Your task to perform on an android device: toggle notifications settings in the gmail app Image 0: 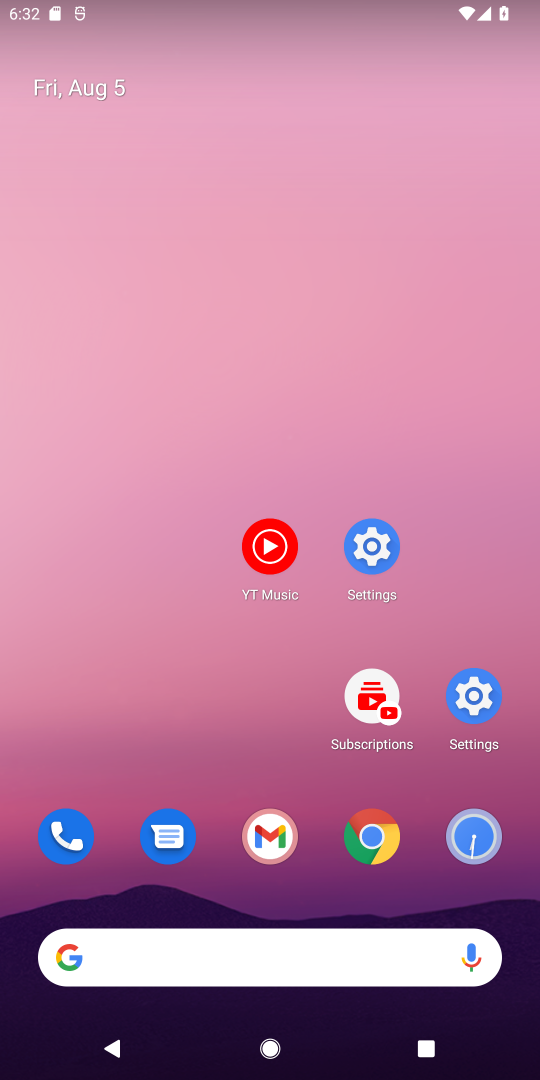
Step 0: drag from (366, 768) to (310, 359)
Your task to perform on an android device: toggle notifications settings in the gmail app Image 1: 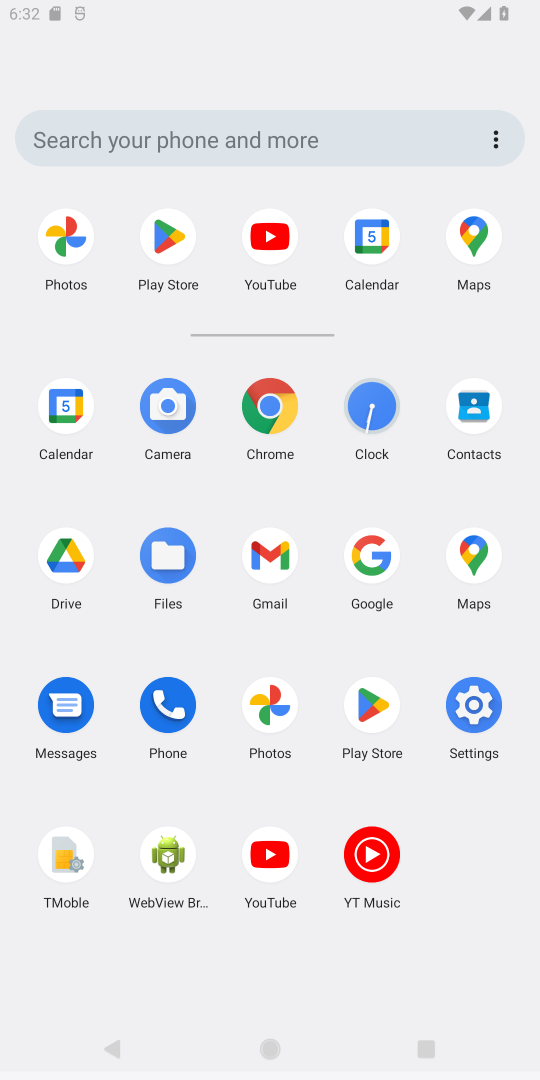
Step 1: drag from (357, 690) to (326, 263)
Your task to perform on an android device: toggle notifications settings in the gmail app Image 2: 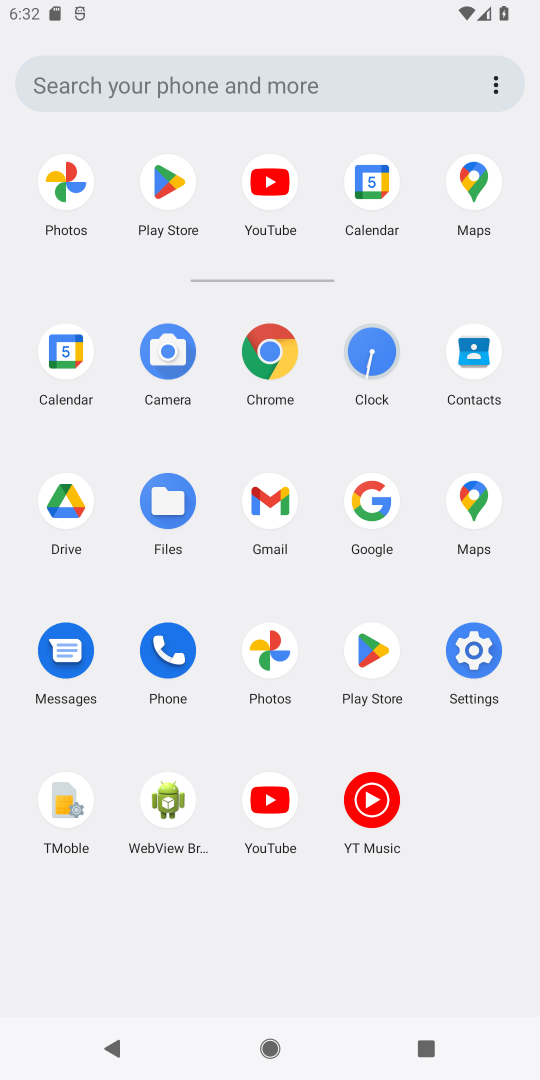
Step 2: click (286, 495)
Your task to perform on an android device: toggle notifications settings in the gmail app Image 3: 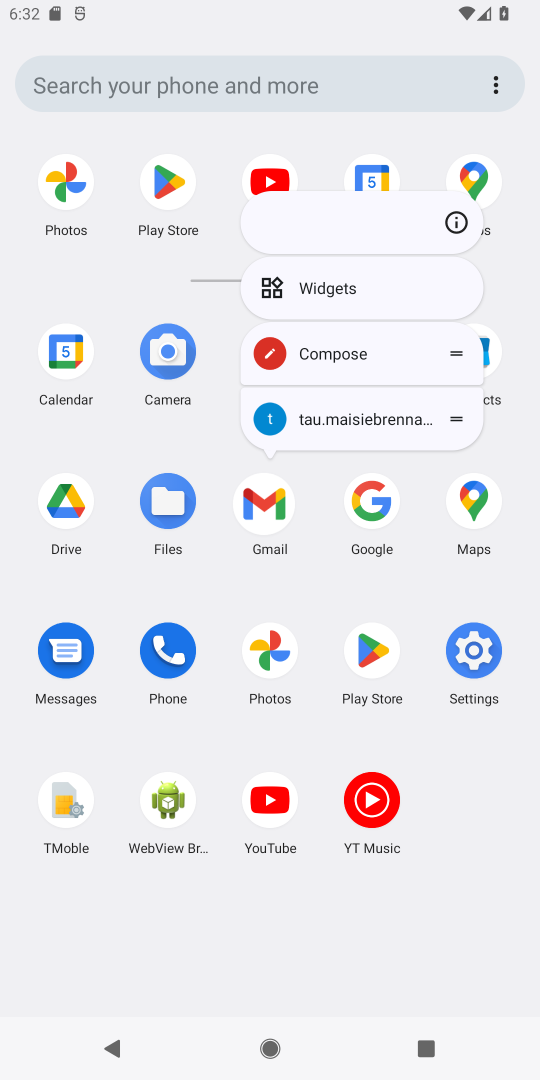
Step 3: click (278, 500)
Your task to perform on an android device: toggle notifications settings in the gmail app Image 4: 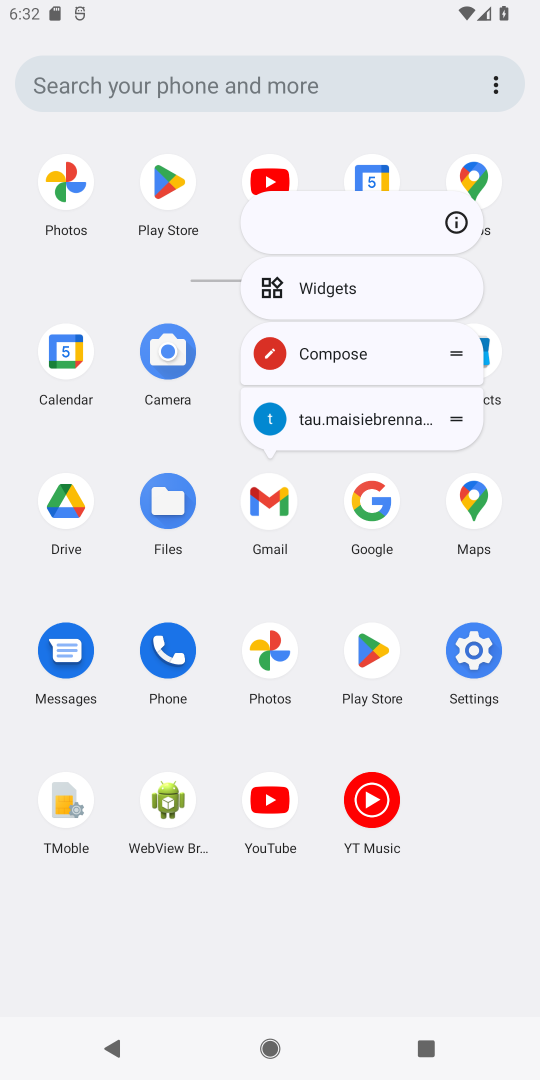
Step 4: click (278, 500)
Your task to perform on an android device: toggle notifications settings in the gmail app Image 5: 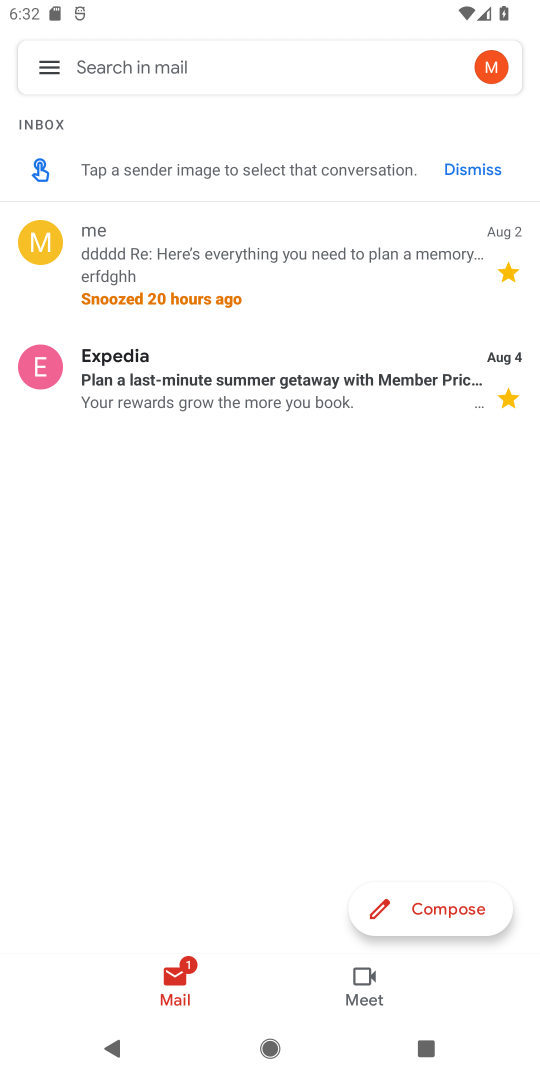
Step 5: click (91, 71)
Your task to perform on an android device: toggle notifications settings in the gmail app Image 6: 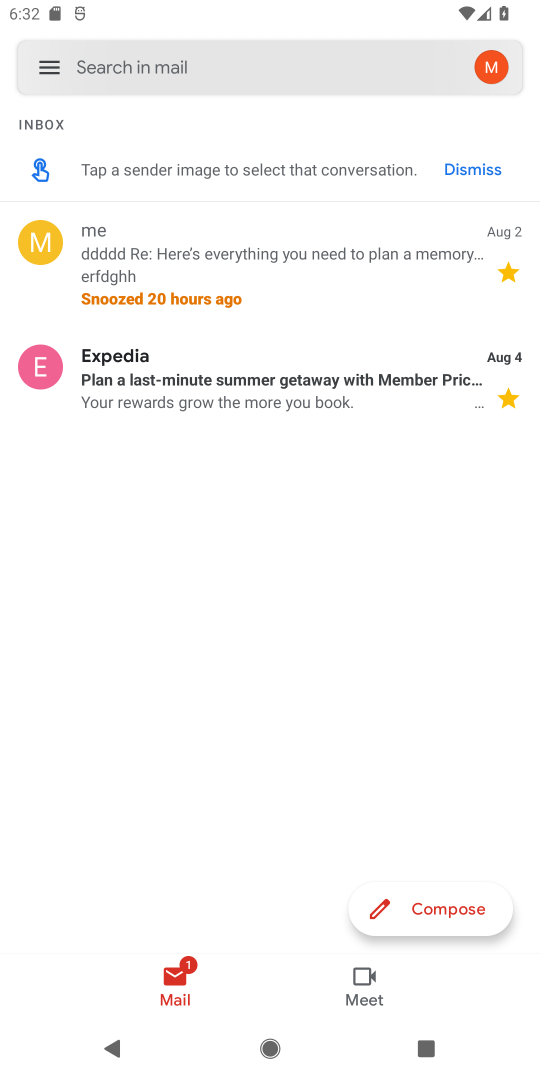
Step 6: click (94, 72)
Your task to perform on an android device: toggle notifications settings in the gmail app Image 7: 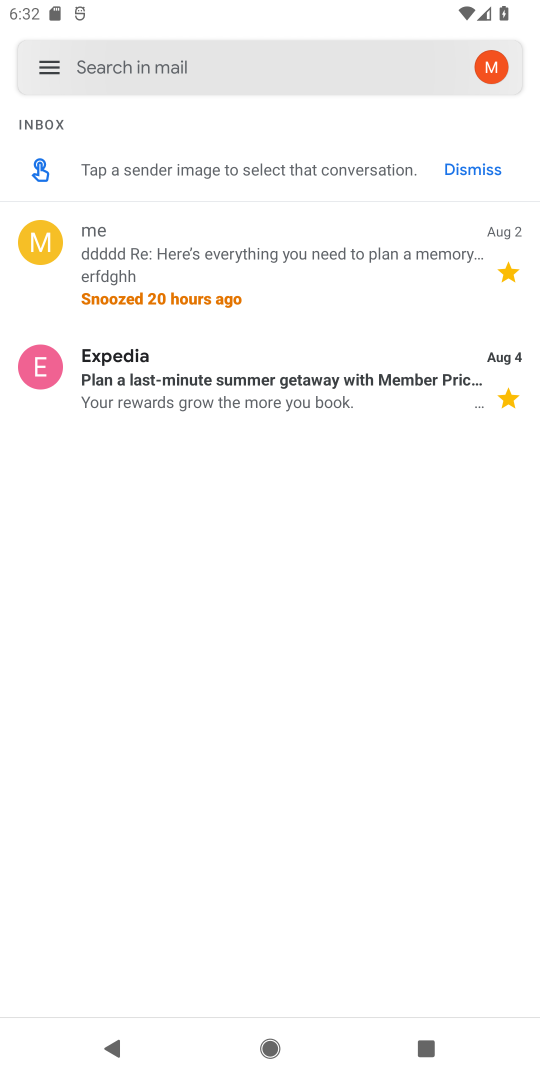
Step 7: click (94, 72)
Your task to perform on an android device: toggle notifications settings in the gmail app Image 8: 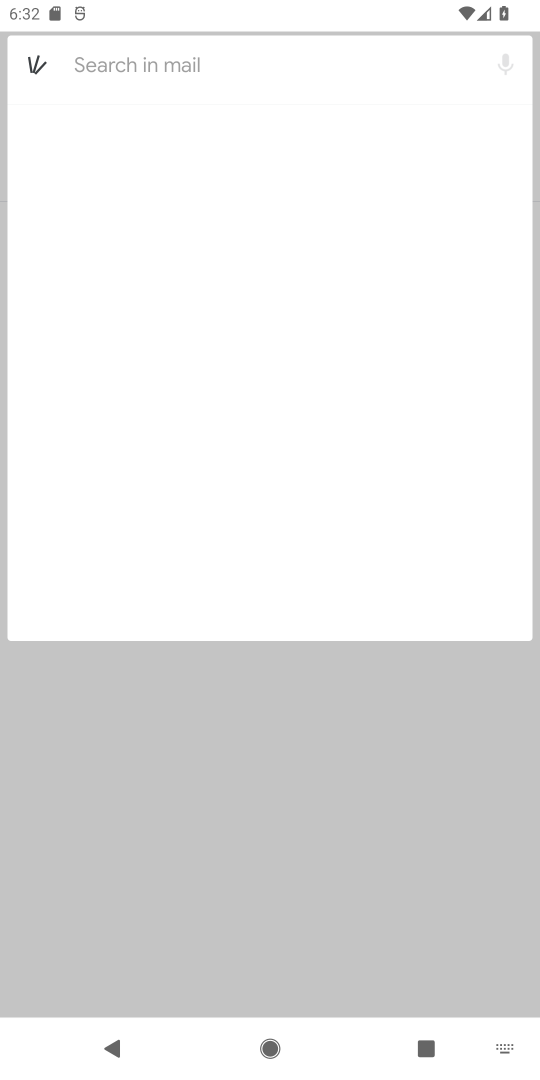
Step 8: click (94, 72)
Your task to perform on an android device: toggle notifications settings in the gmail app Image 9: 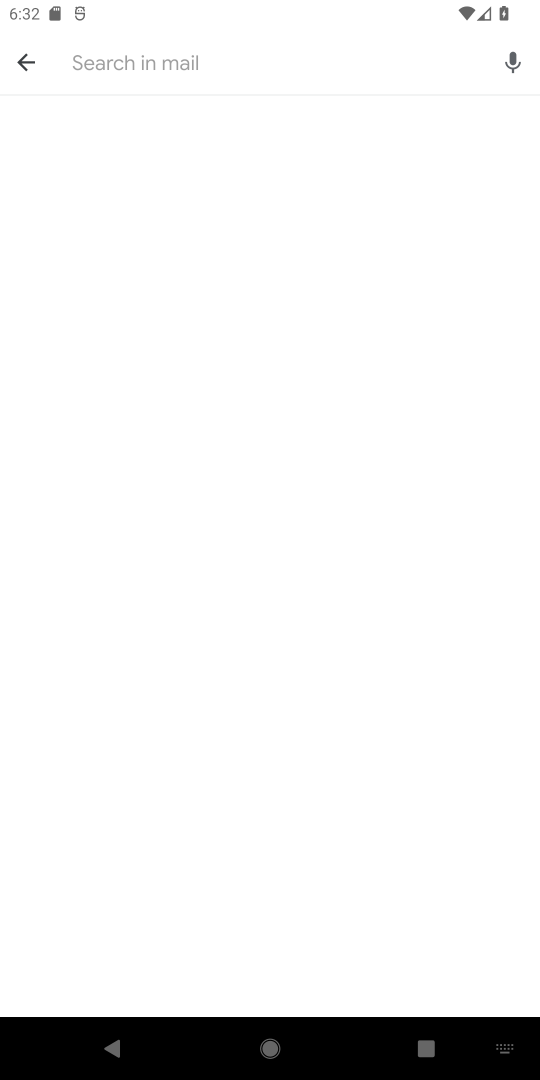
Step 9: click (23, 69)
Your task to perform on an android device: toggle notifications settings in the gmail app Image 10: 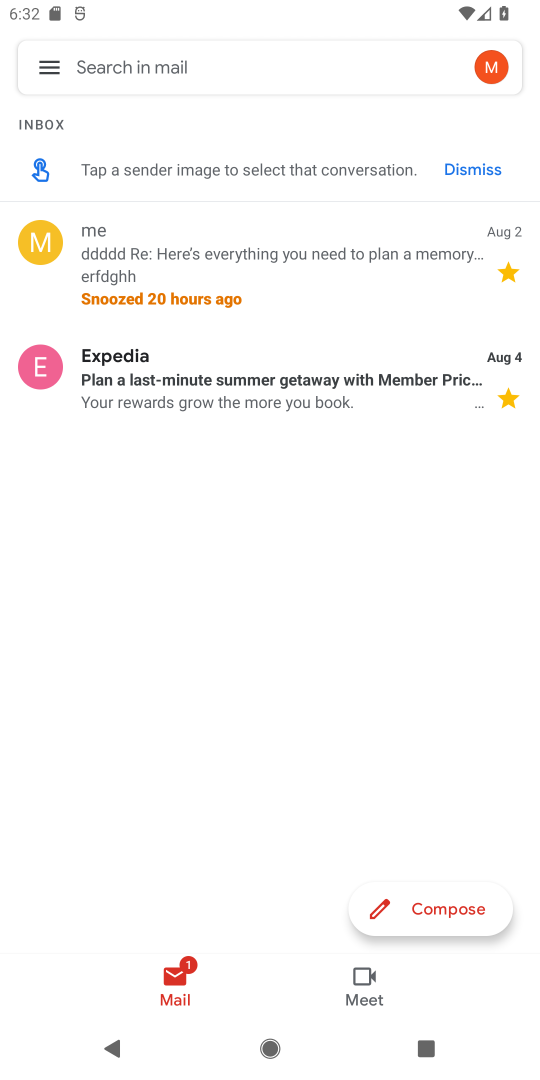
Step 10: click (53, 65)
Your task to perform on an android device: toggle notifications settings in the gmail app Image 11: 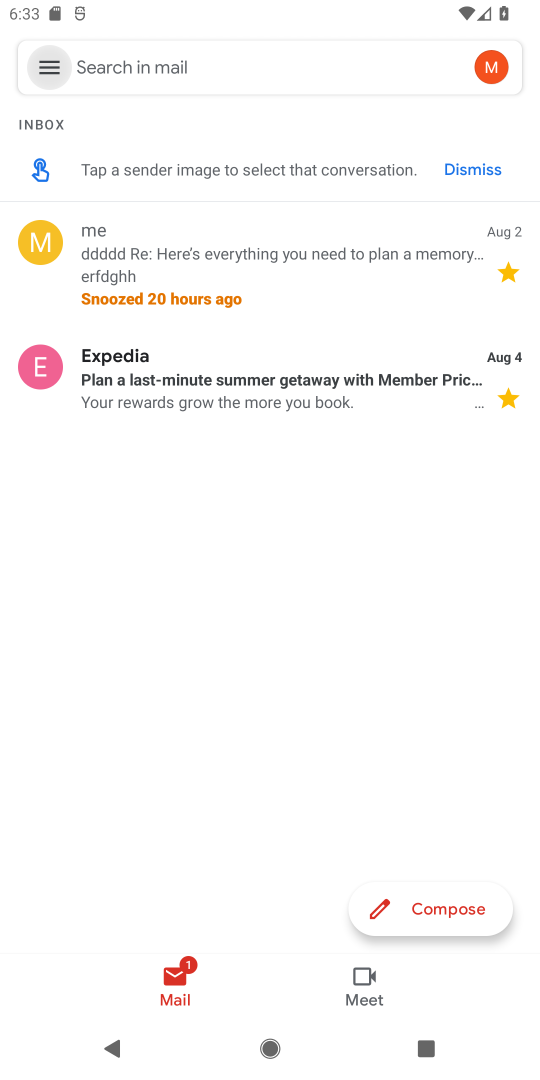
Step 11: click (54, 64)
Your task to perform on an android device: toggle notifications settings in the gmail app Image 12: 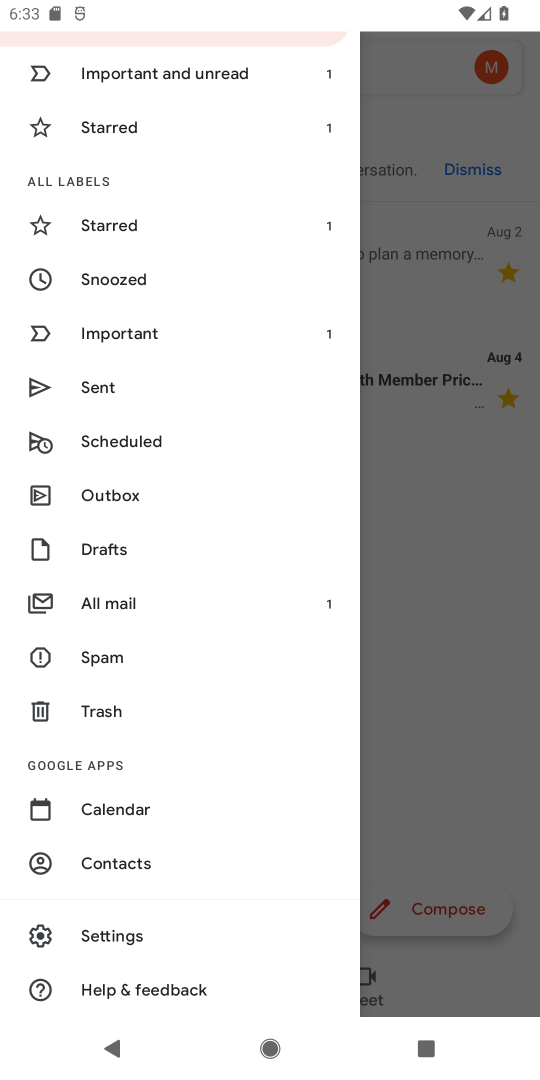
Step 12: drag from (54, 64) to (86, 538)
Your task to perform on an android device: toggle notifications settings in the gmail app Image 13: 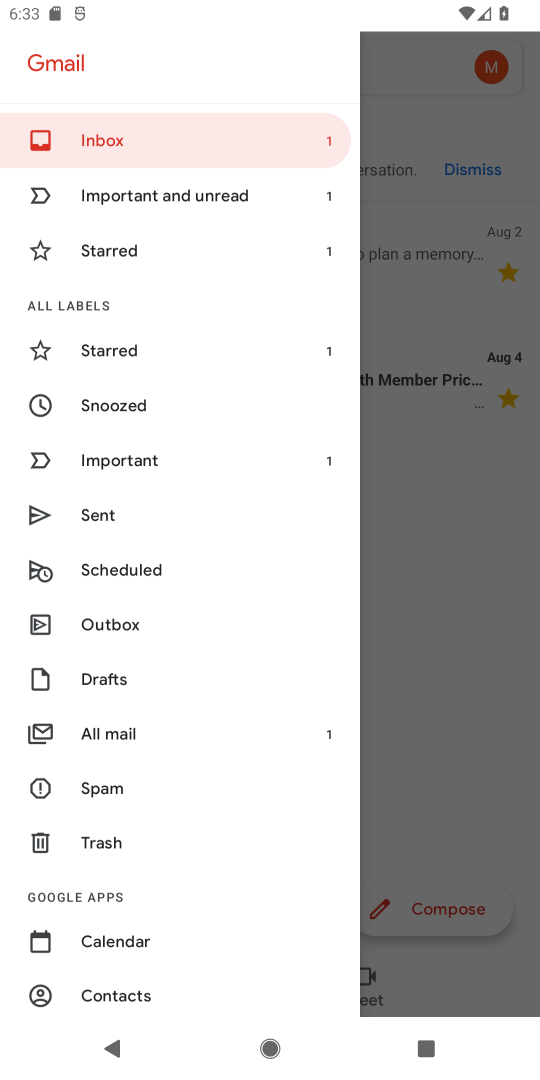
Step 13: drag from (148, 493) to (144, 411)
Your task to perform on an android device: toggle notifications settings in the gmail app Image 14: 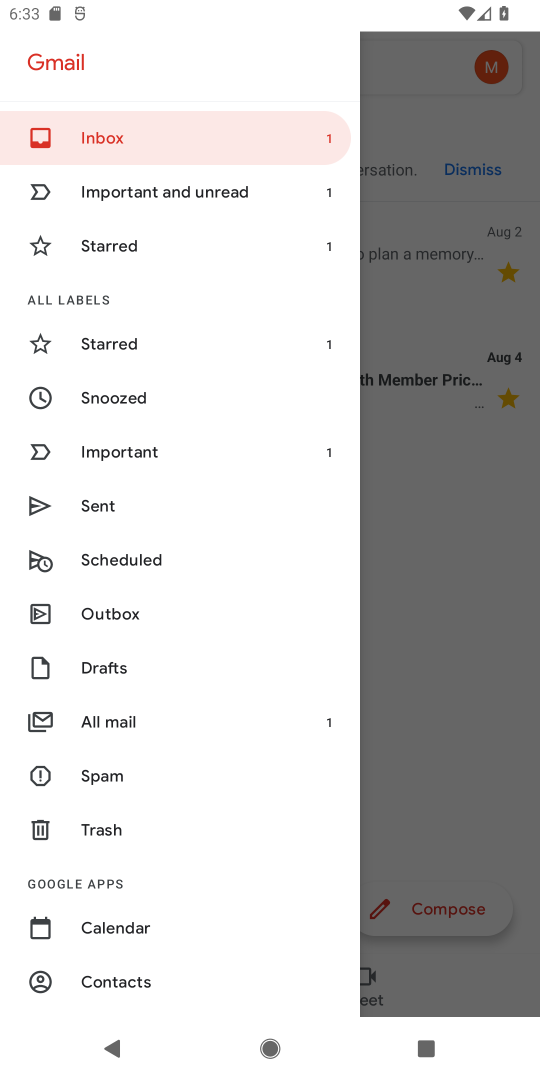
Step 14: drag from (150, 538) to (150, 326)
Your task to perform on an android device: toggle notifications settings in the gmail app Image 15: 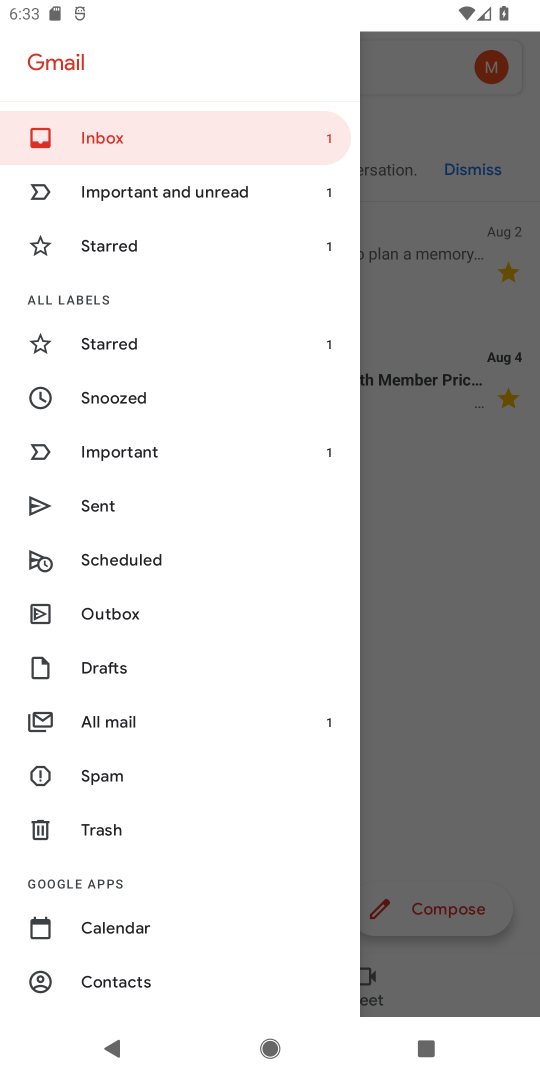
Step 15: click (188, 481)
Your task to perform on an android device: toggle notifications settings in the gmail app Image 16: 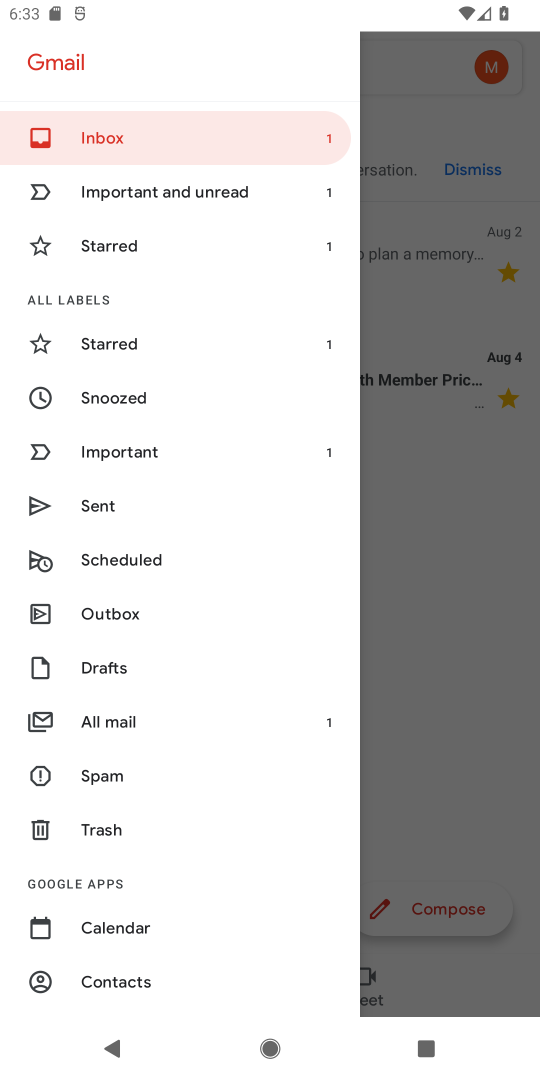
Step 16: click (173, 469)
Your task to perform on an android device: toggle notifications settings in the gmail app Image 17: 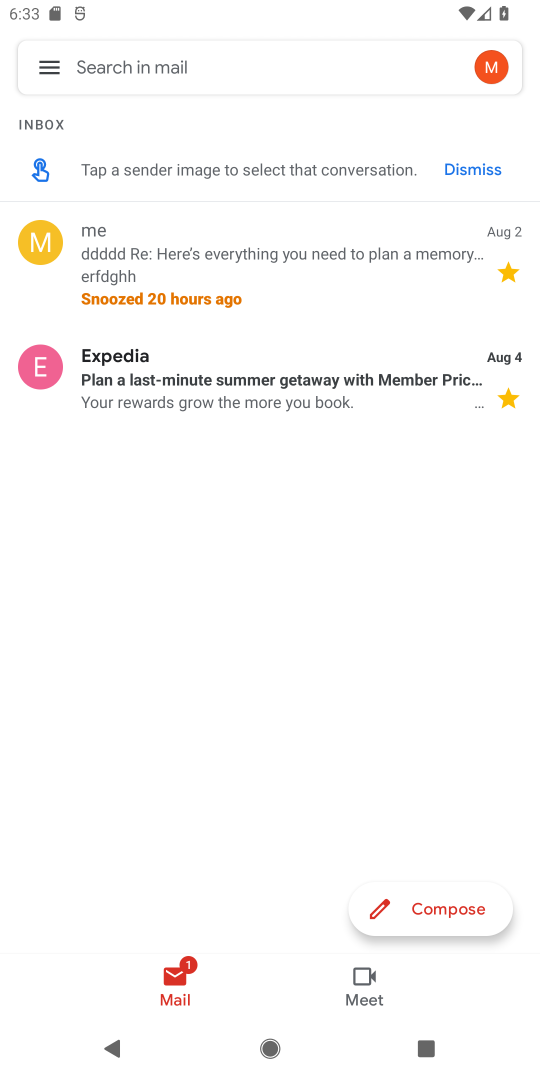
Step 17: drag from (184, 703) to (201, 491)
Your task to perform on an android device: toggle notifications settings in the gmail app Image 18: 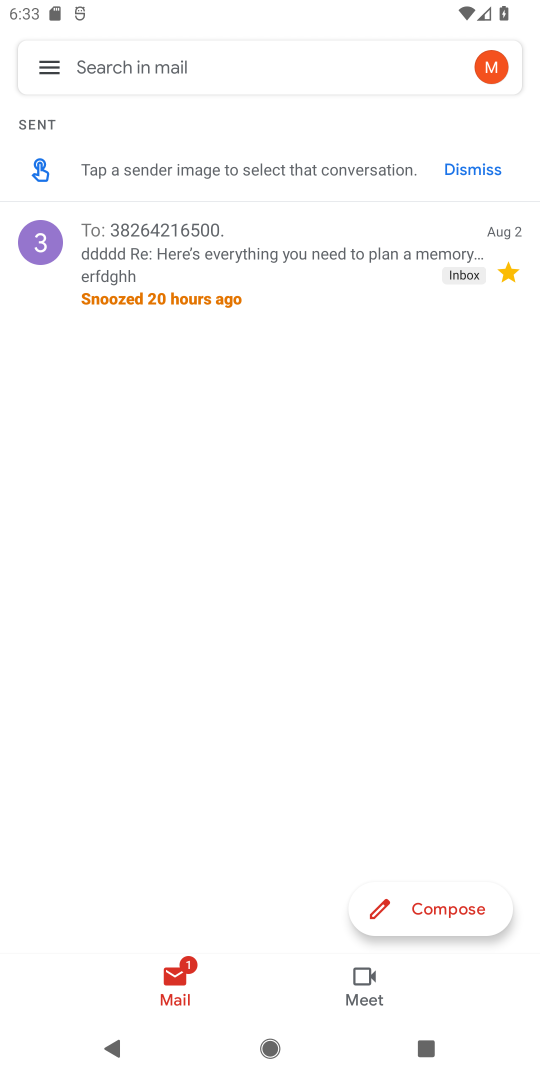
Step 18: click (54, 63)
Your task to perform on an android device: toggle notifications settings in the gmail app Image 19: 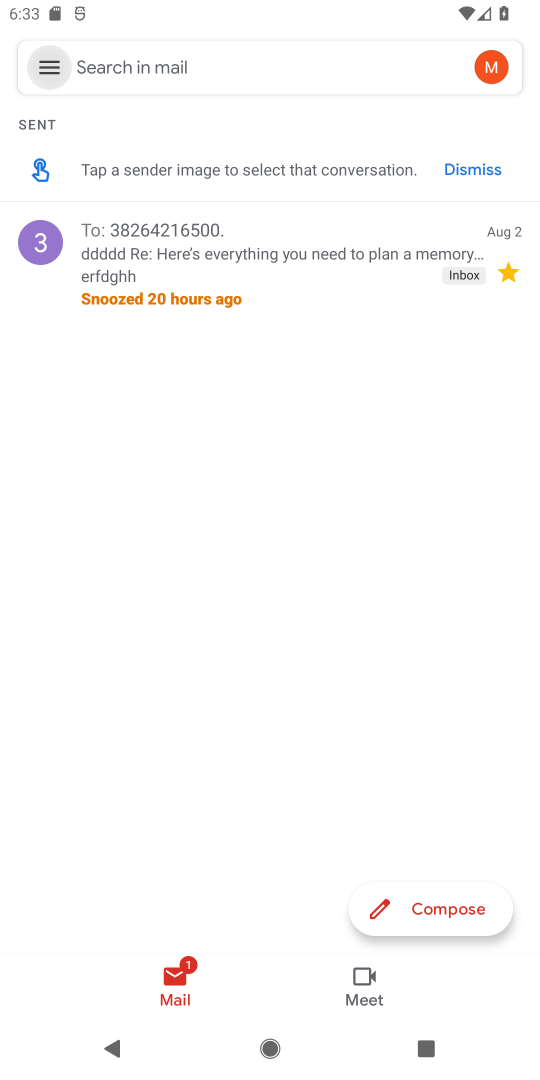
Step 19: click (54, 63)
Your task to perform on an android device: toggle notifications settings in the gmail app Image 20: 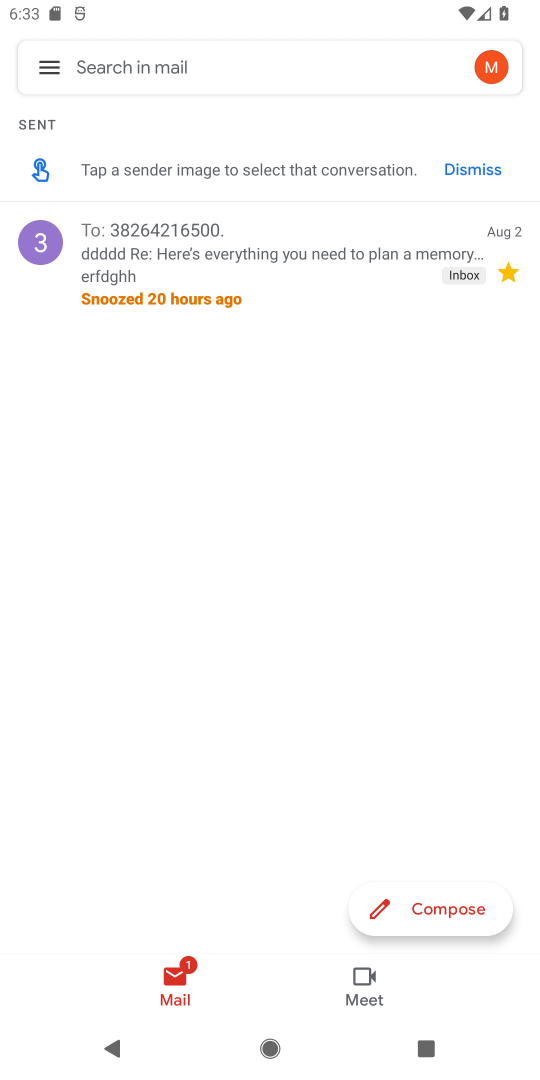
Step 20: click (52, 61)
Your task to perform on an android device: toggle notifications settings in the gmail app Image 21: 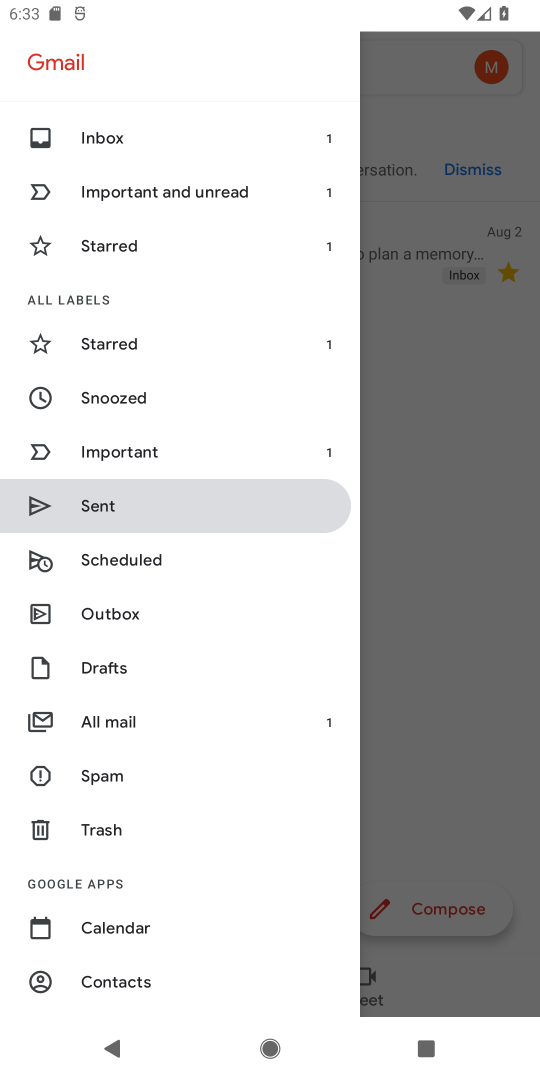
Step 21: drag from (155, 538) to (209, 464)
Your task to perform on an android device: toggle notifications settings in the gmail app Image 22: 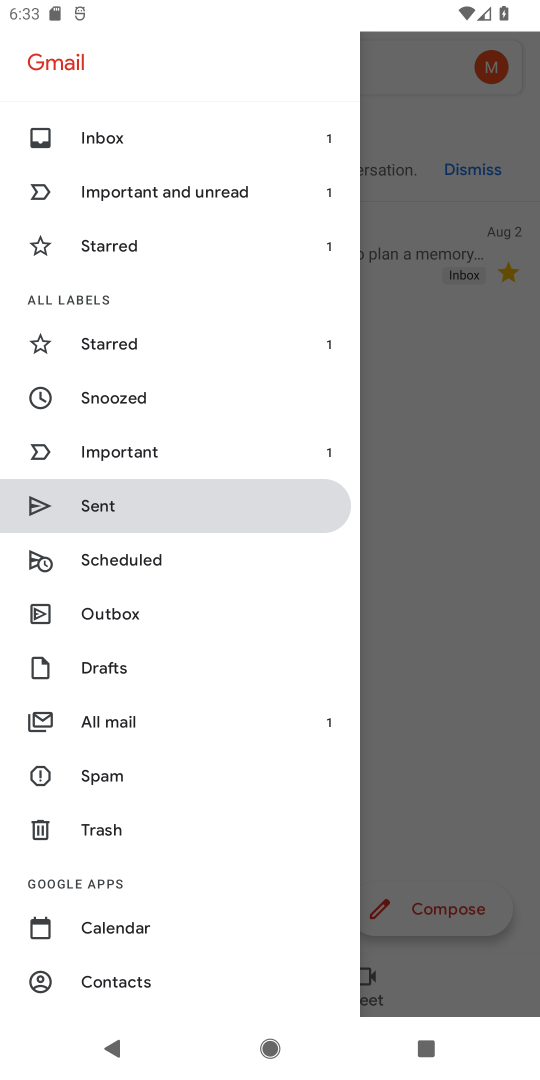
Step 22: drag from (130, 968) to (161, 229)
Your task to perform on an android device: toggle notifications settings in the gmail app Image 23: 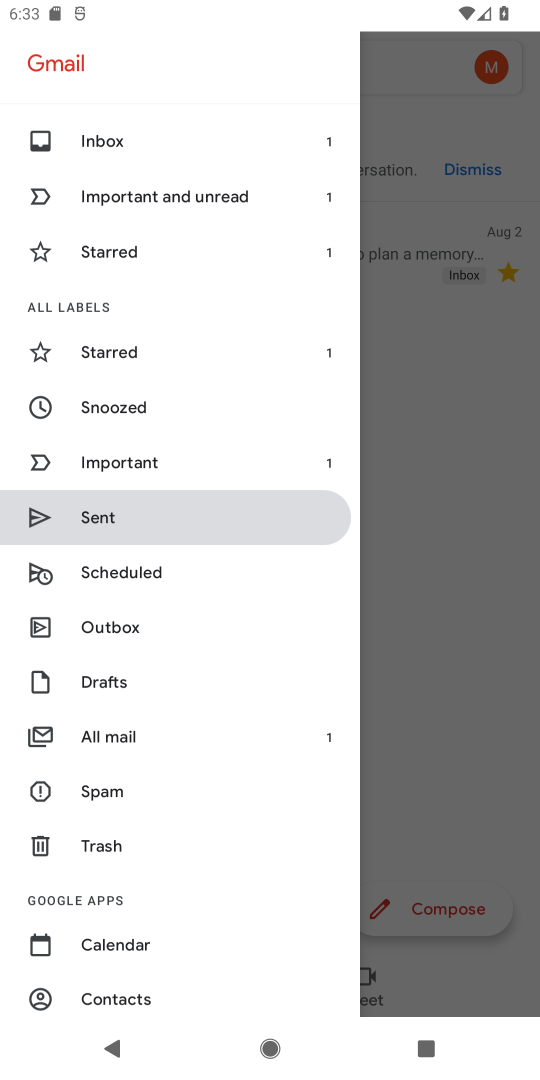
Step 23: drag from (186, 615) to (213, 262)
Your task to perform on an android device: toggle notifications settings in the gmail app Image 24: 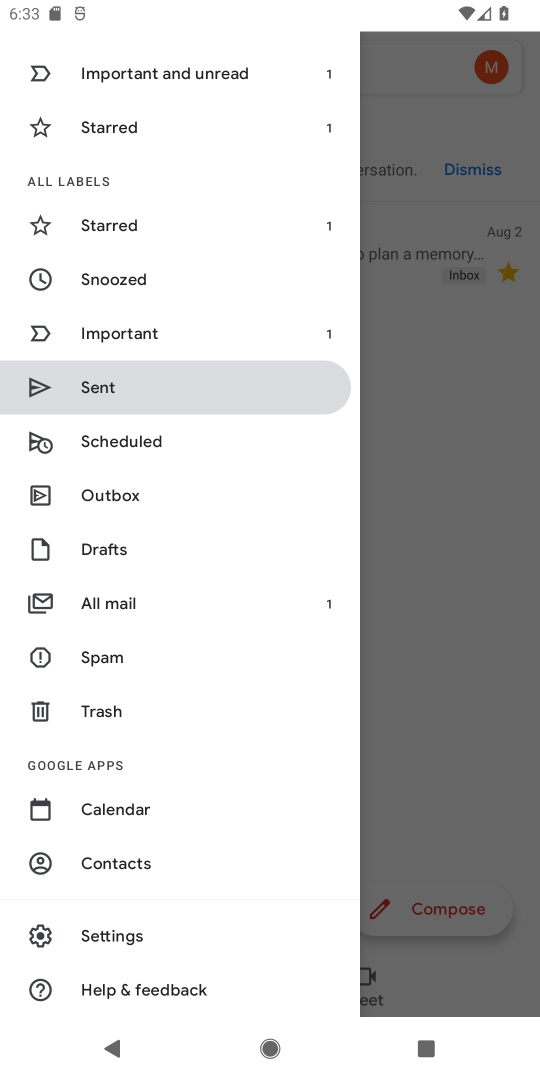
Step 24: click (105, 931)
Your task to perform on an android device: toggle notifications settings in the gmail app Image 25: 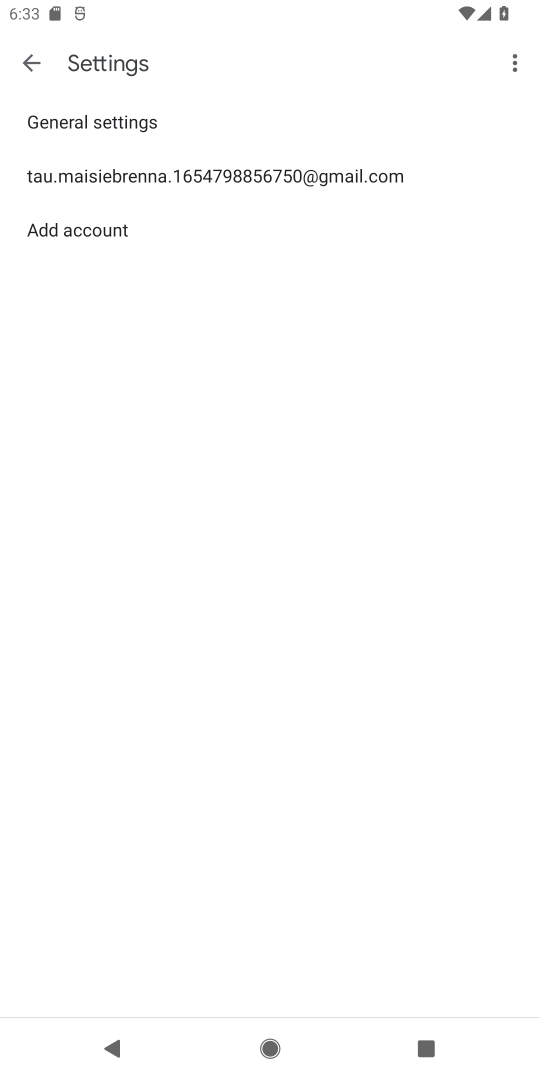
Step 25: click (137, 188)
Your task to perform on an android device: toggle notifications settings in the gmail app Image 26: 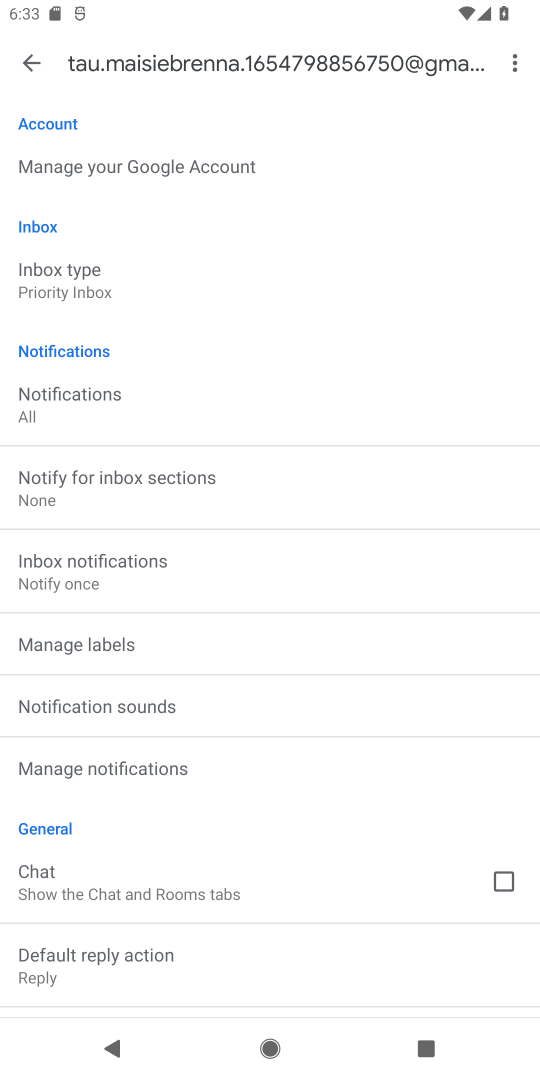
Step 26: click (64, 390)
Your task to perform on an android device: toggle notifications settings in the gmail app Image 27: 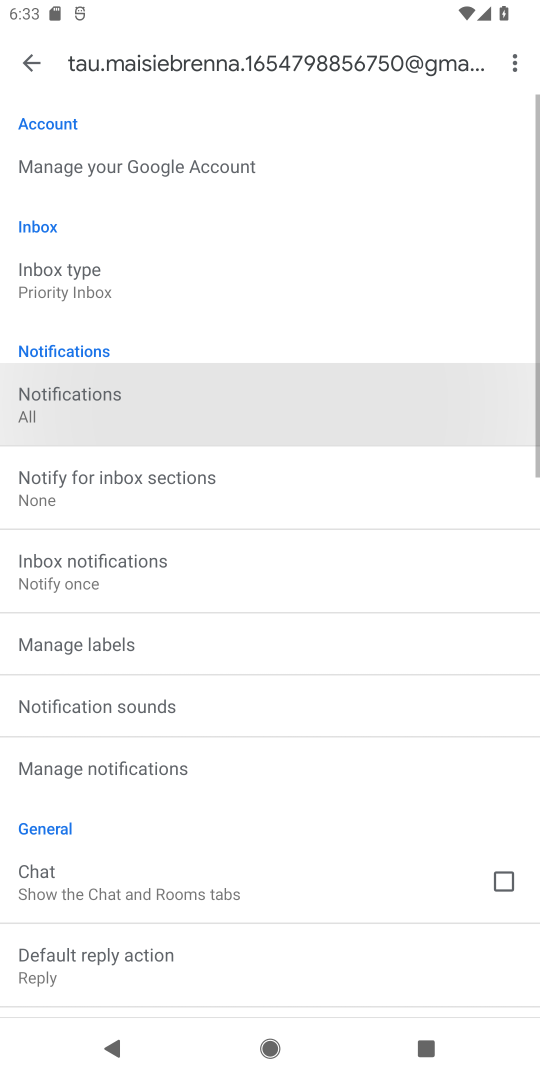
Step 27: click (64, 390)
Your task to perform on an android device: toggle notifications settings in the gmail app Image 28: 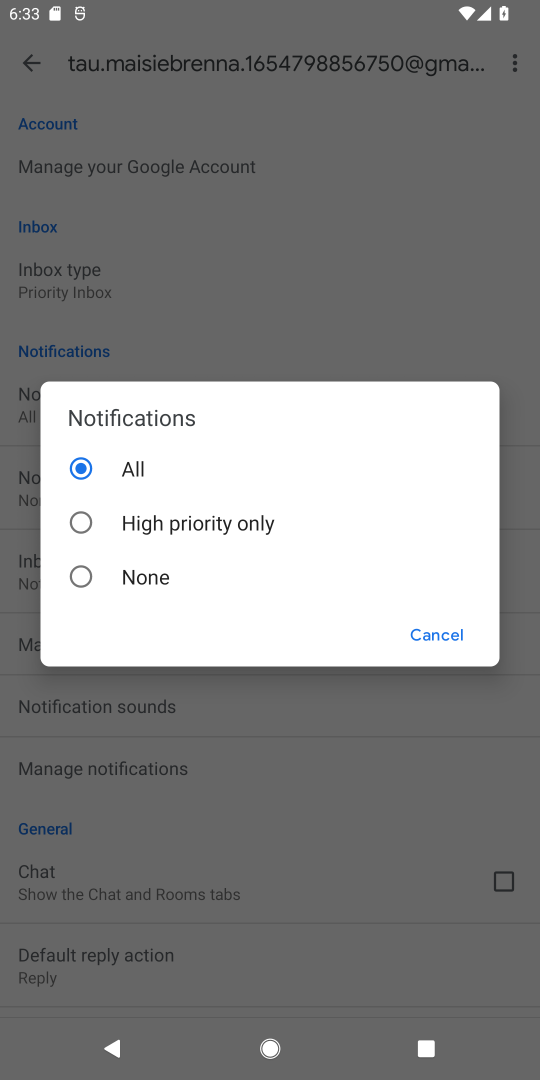
Step 28: click (82, 521)
Your task to perform on an android device: toggle notifications settings in the gmail app Image 29: 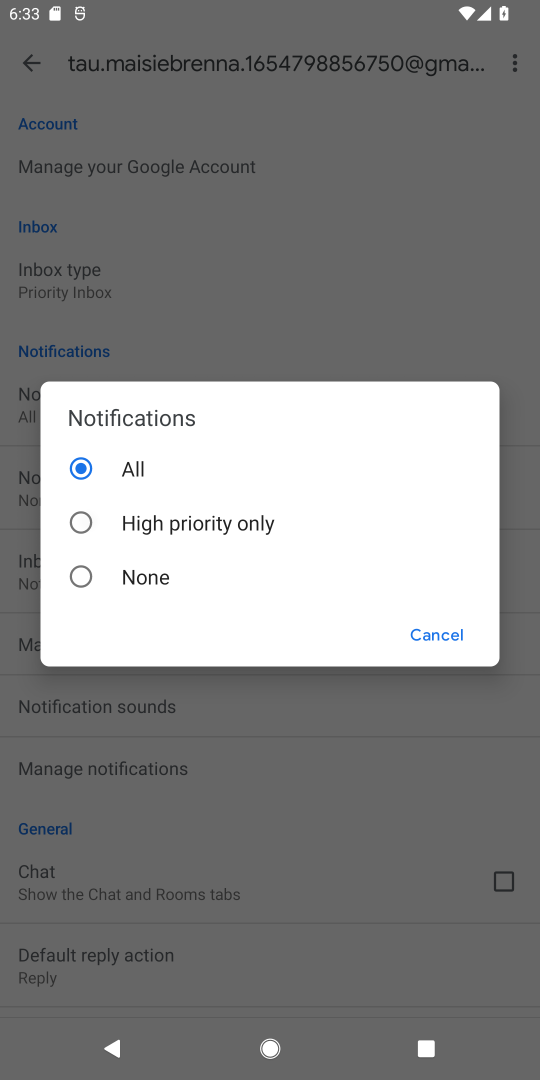
Step 29: click (82, 521)
Your task to perform on an android device: toggle notifications settings in the gmail app Image 30: 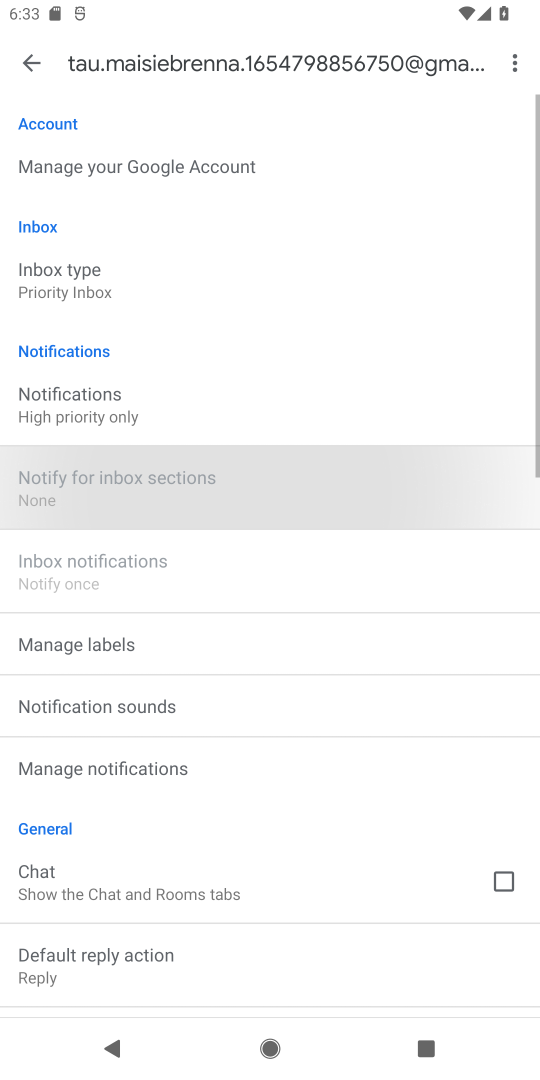
Step 30: click (82, 521)
Your task to perform on an android device: toggle notifications settings in the gmail app Image 31: 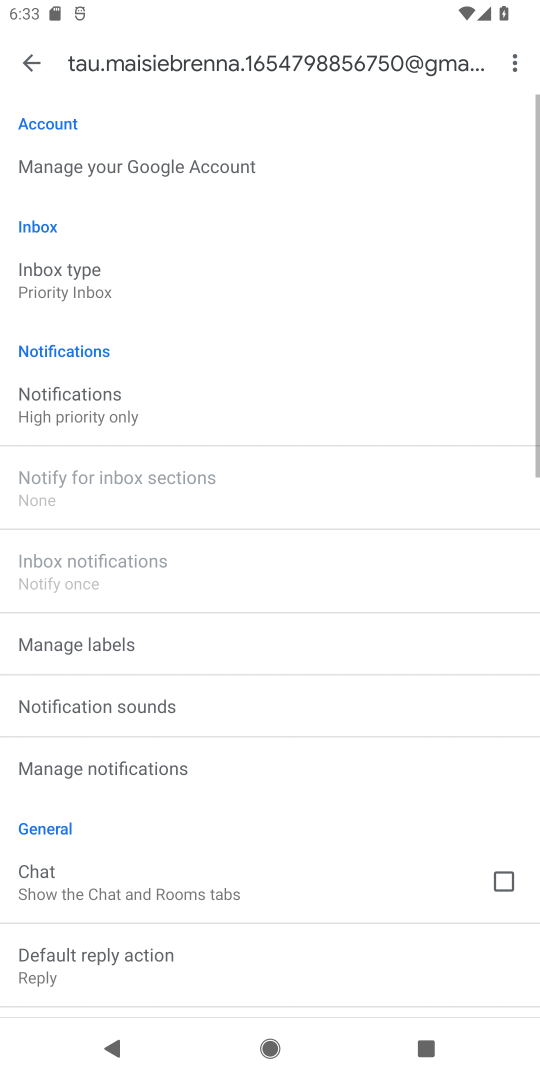
Step 31: task complete